Your task to perform on an android device: Check the settings for the Google Play Music app Image 0: 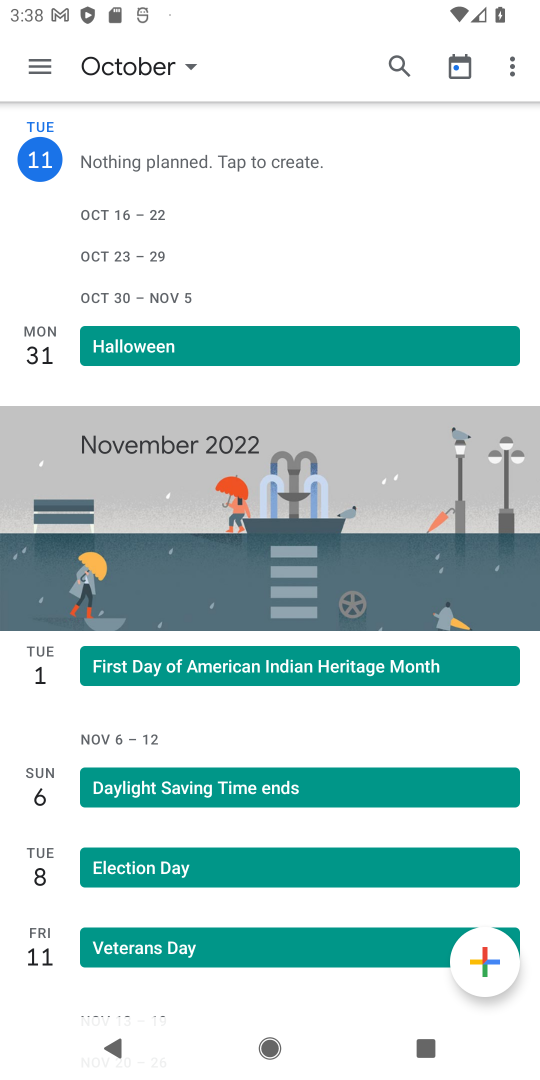
Step 0: press home button
Your task to perform on an android device: Check the settings for the Google Play Music app Image 1: 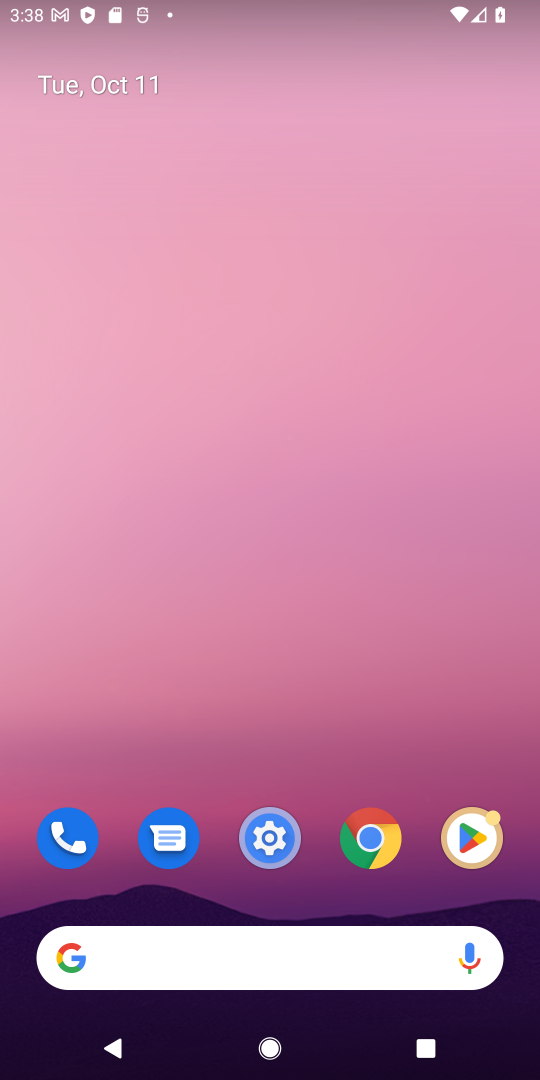
Step 1: task complete